Your task to perform on an android device: change notifications settings Image 0: 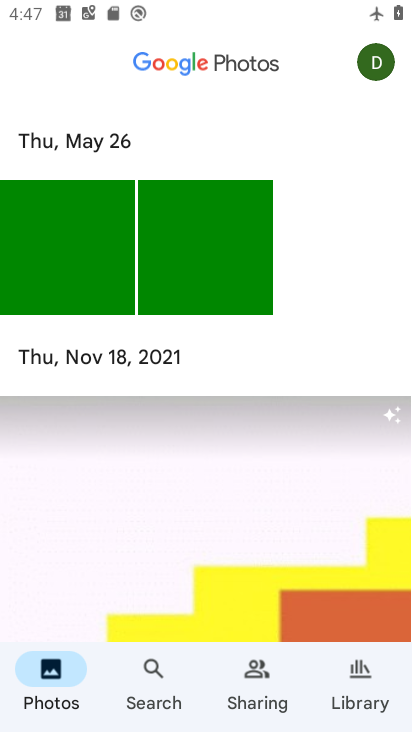
Step 0: press home button
Your task to perform on an android device: change notifications settings Image 1: 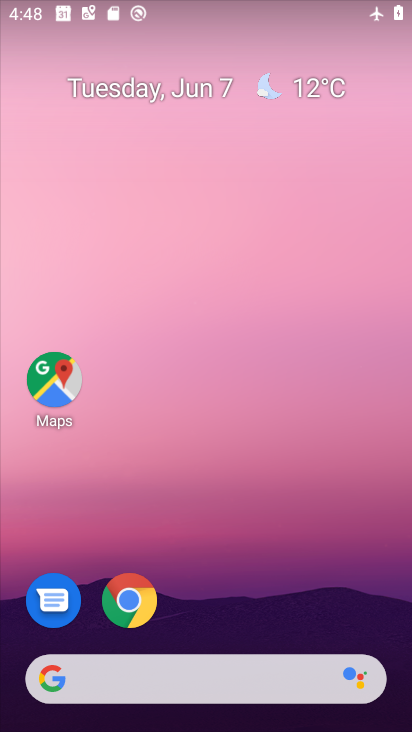
Step 1: drag from (248, 612) to (282, 254)
Your task to perform on an android device: change notifications settings Image 2: 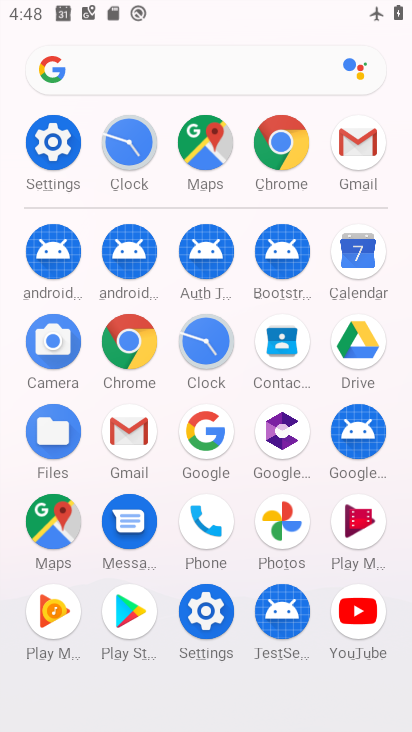
Step 2: click (41, 155)
Your task to perform on an android device: change notifications settings Image 3: 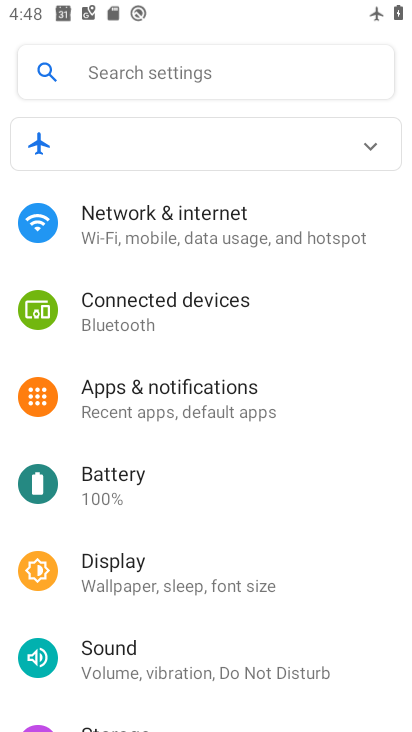
Step 3: drag from (184, 563) to (228, 361)
Your task to perform on an android device: change notifications settings Image 4: 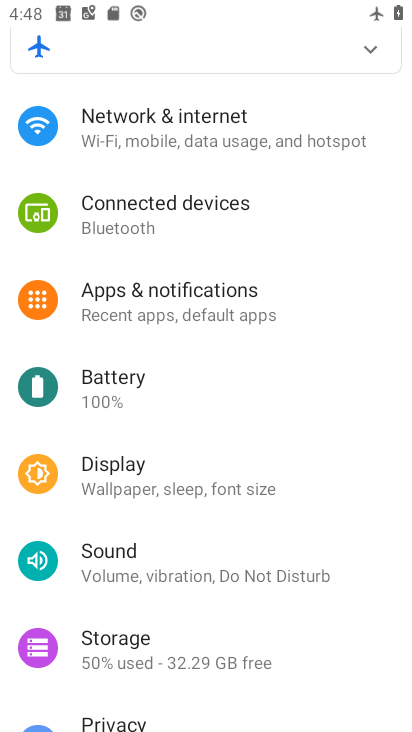
Step 4: click (212, 299)
Your task to perform on an android device: change notifications settings Image 5: 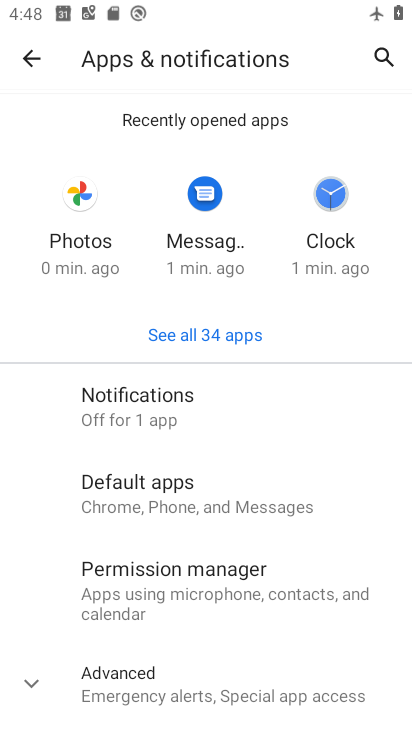
Step 5: click (192, 396)
Your task to perform on an android device: change notifications settings Image 6: 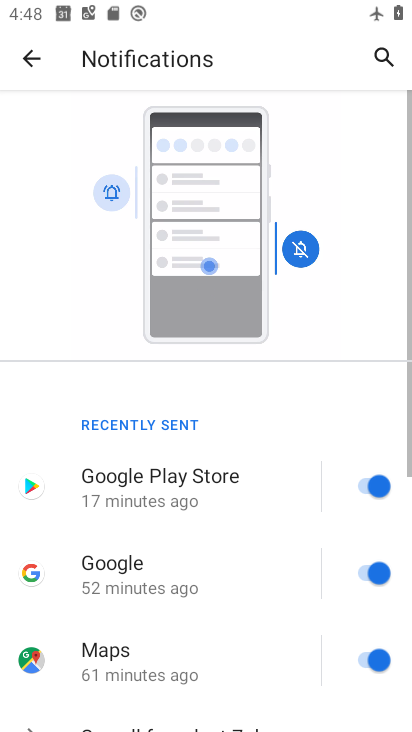
Step 6: task complete